Your task to perform on an android device: turn off javascript in the chrome app Image 0: 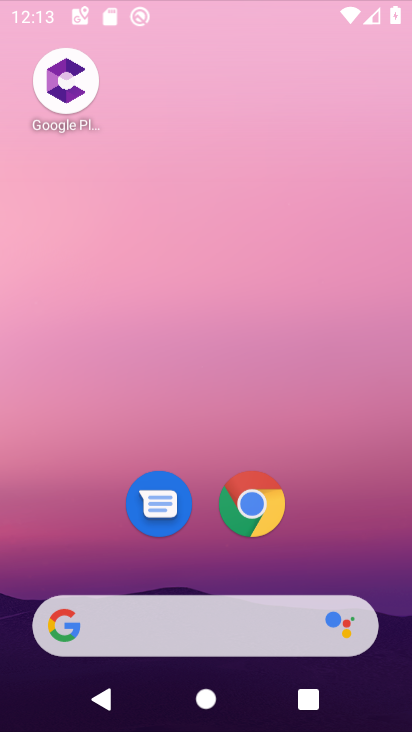
Step 0: click (271, 486)
Your task to perform on an android device: turn off javascript in the chrome app Image 1: 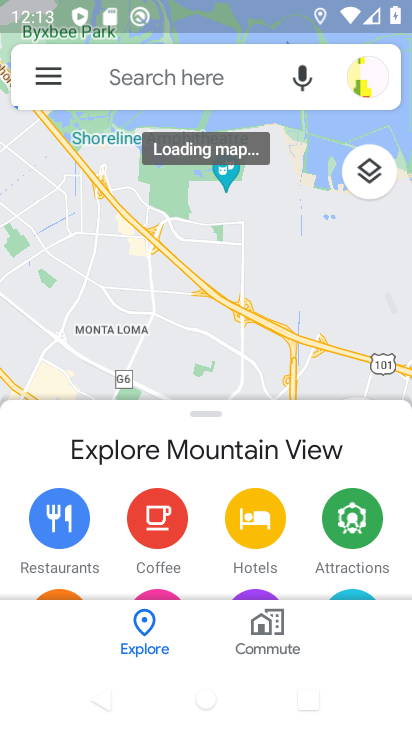
Step 1: click (364, 79)
Your task to perform on an android device: turn off javascript in the chrome app Image 2: 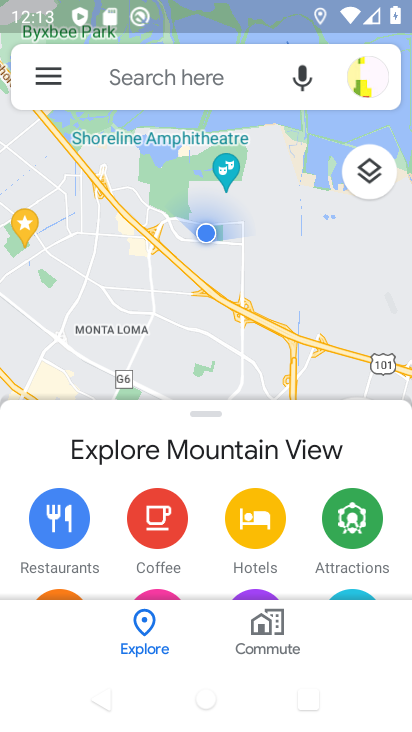
Step 2: click (364, 79)
Your task to perform on an android device: turn off javascript in the chrome app Image 3: 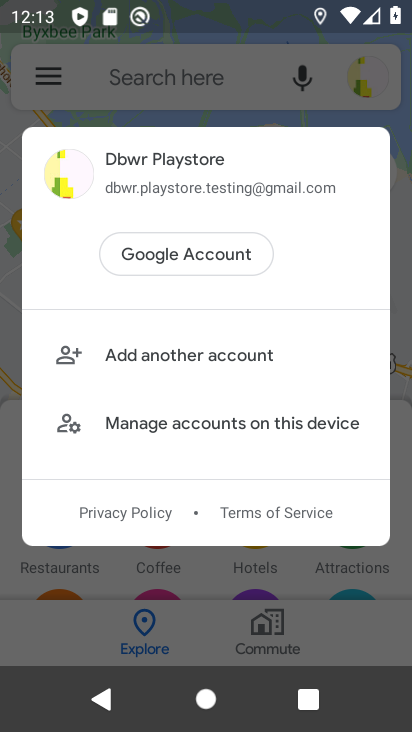
Step 3: click (364, 79)
Your task to perform on an android device: turn off javascript in the chrome app Image 4: 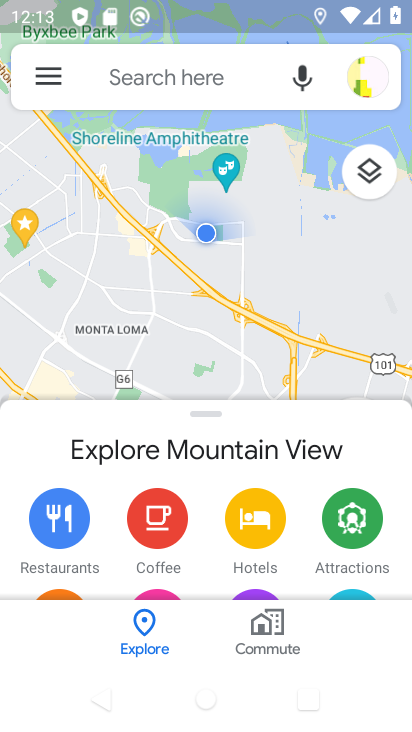
Step 4: press home button
Your task to perform on an android device: turn off javascript in the chrome app Image 5: 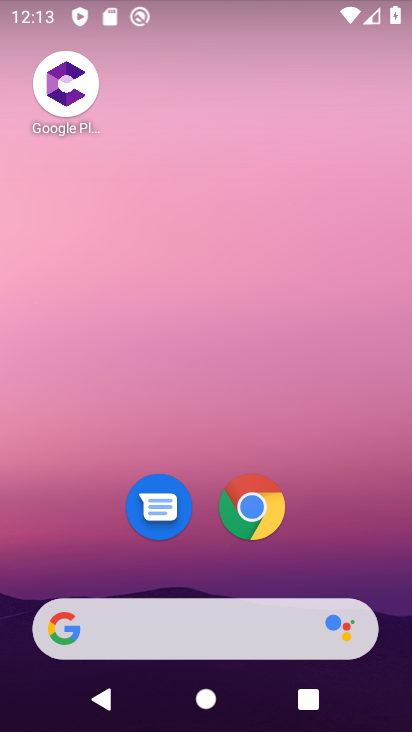
Step 5: drag from (195, 571) to (221, 193)
Your task to perform on an android device: turn off javascript in the chrome app Image 6: 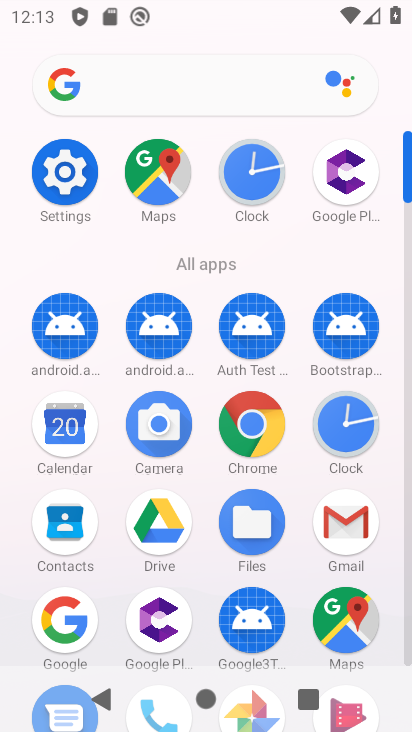
Step 6: click (243, 416)
Your task to perform on an android device: turn off javascript in the chrome app Image 7: 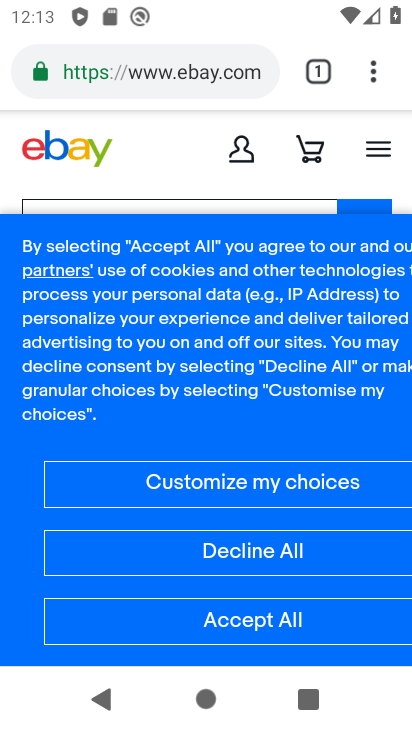
Step 7: drag from (369, 81) to (172, 480)
Your task to perform on an android device: turn off javascript in the chrome app Image 8: 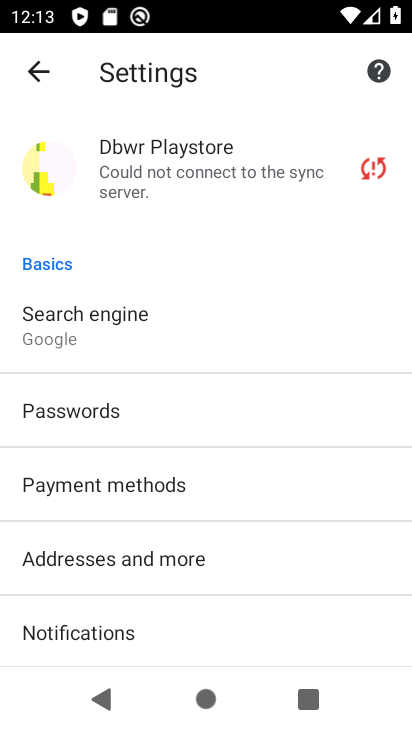
Step 8: drag from (209, 564) to (249, 316)
Your task to perform on an android device: turn off javascript in the chrome app Image 9: 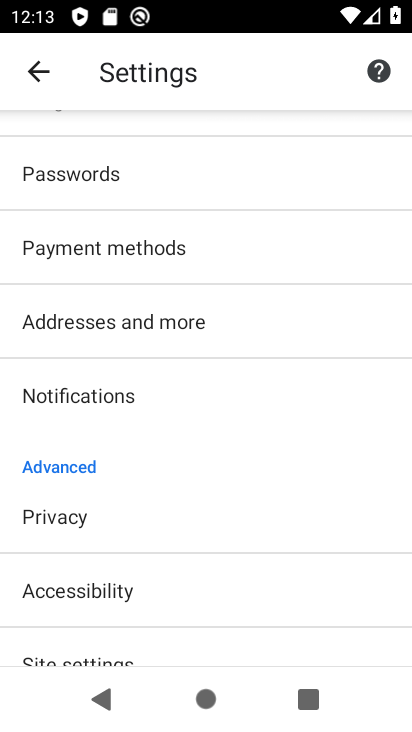
Step 9: drag from (191, 571) to (223, 301)
Your task to perform on an android device: turn off javascript in the chrome app Image 10: 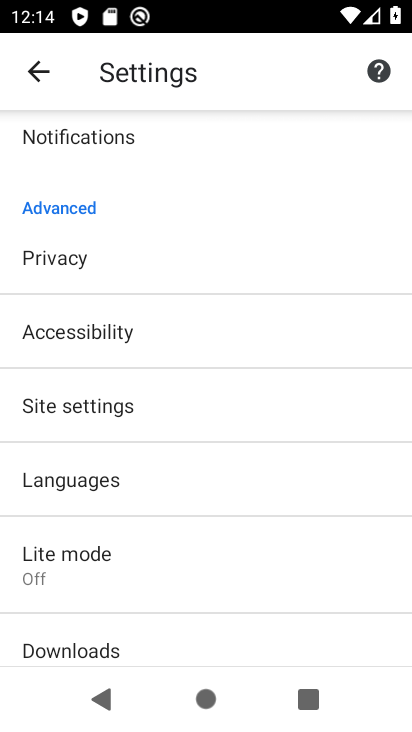
Step 10: click (166, 403)
Your task to perform on an android device: turn off javascript in the chrome app Image 11: 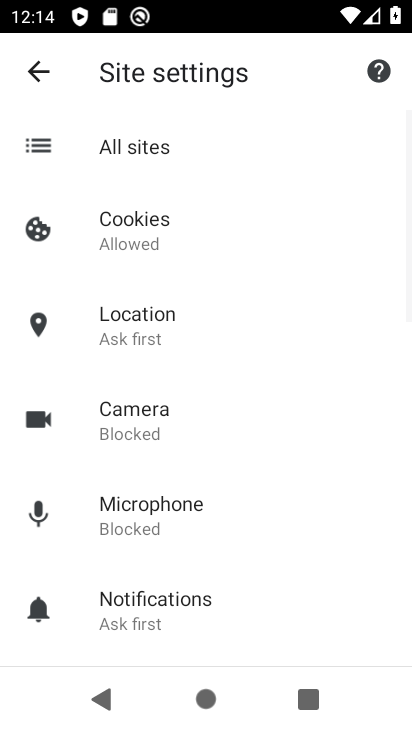
Step 11: drag from (214, 564) to (232, 301)
Your task to perform on an android device: turn off javascript in the chrome app Image 12: 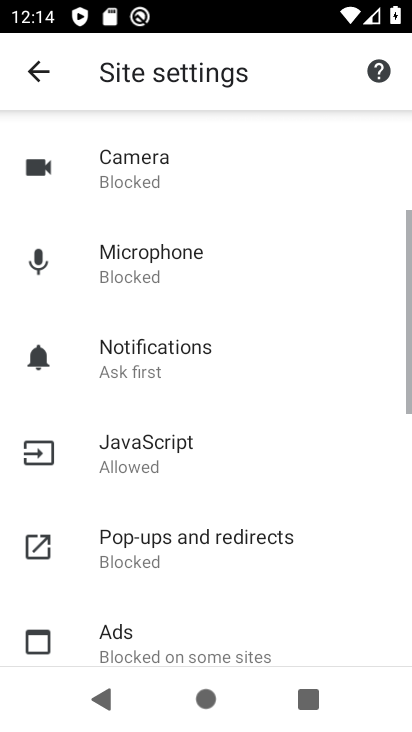
Step 12: click (185, 433)
Your task to perform on an android device: turn off javascript in the chrome app Image 13: 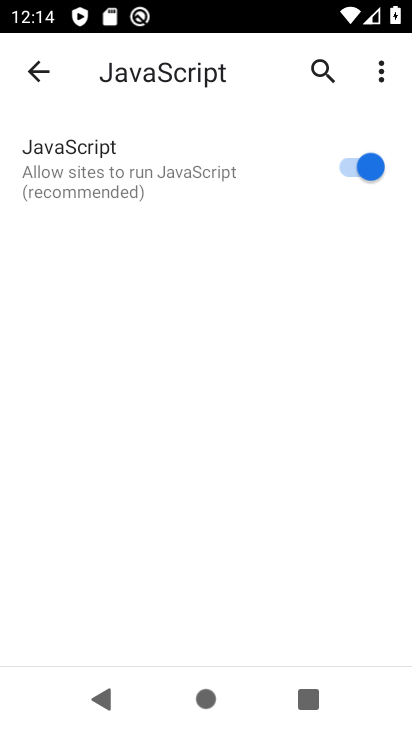
Step 13: click (336, 168)
Your task to perform on an android device: turn off javascript in the chrome app Image 14: 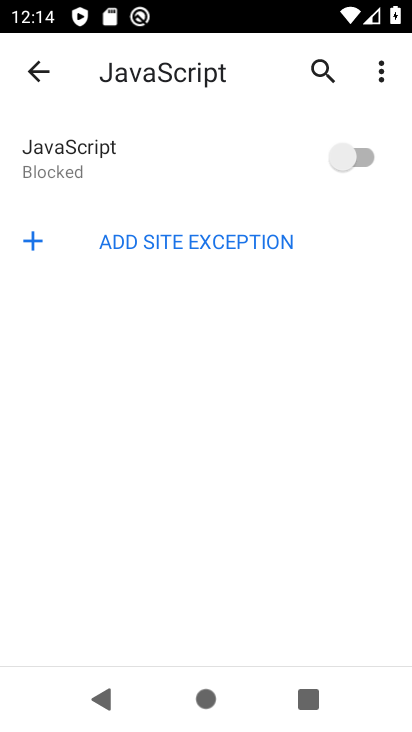
Step 14: task complete